Your task to perform on an android device: toggle notifications settings in the gmail app Image 0: 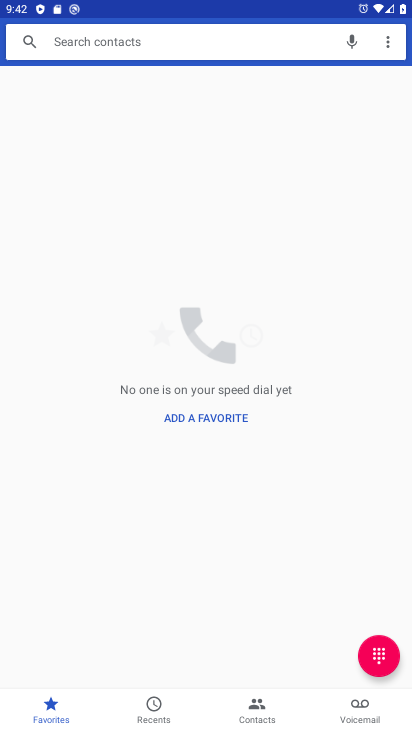
Step 0: press home button
Your task to perform on an android device: toggle notifications settings in the gmail app Image 1: 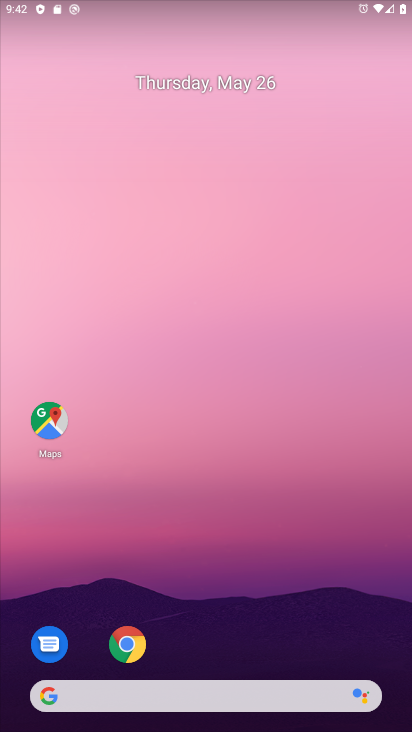
Step 1: drag from (208, 645) to (200, 248)
Your task to perform on an android device: toggle notifications settings in the gmail app Image 2: 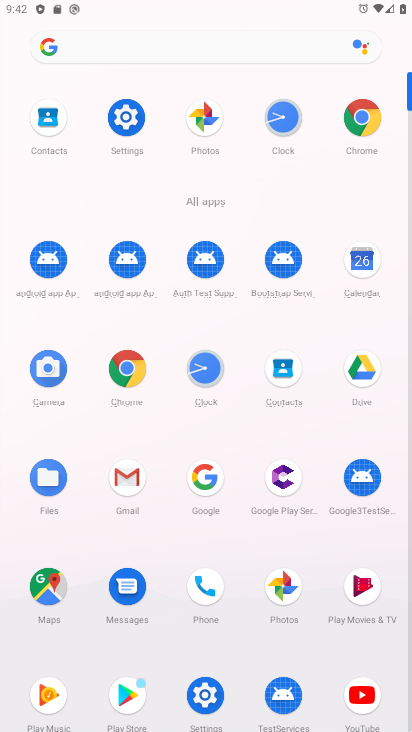
Step 2: click (135, 490)
Your task to perform on an android device: toggle notifications settings in the gmail app Image 3: 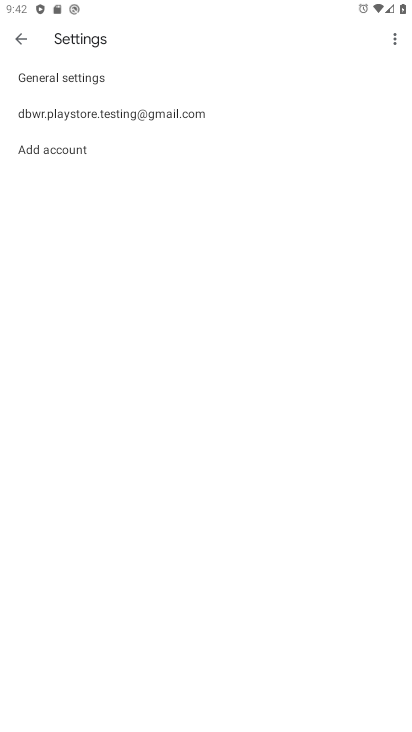
Step 3: click (213, 118)
Your task to perform on an android device: toggle notifications settings in the gmail app Image 4: 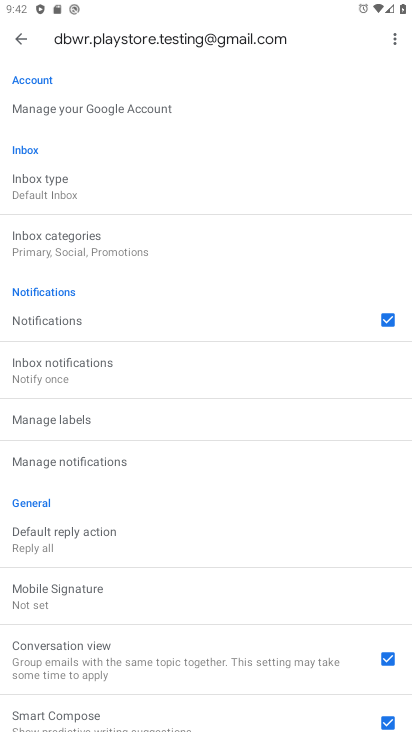
Step 4: click (108, 458)
Your task to perform on an android device: toggle notifications settings in the gmail app Image 5: 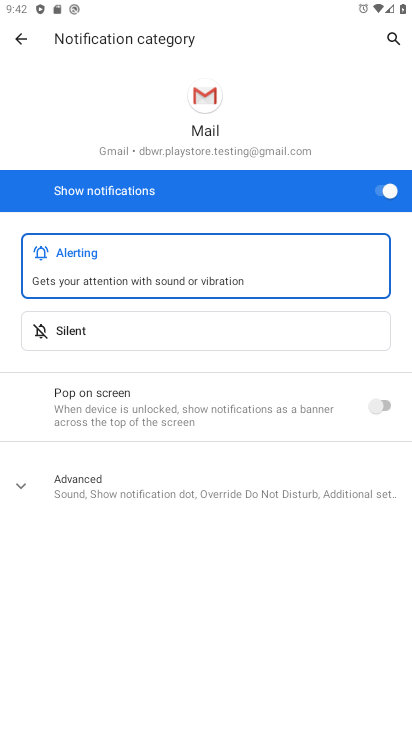
Step 5: click (373, 194)
Your task to perform on an android device: toggle notifications settings in the gmail app Image 6: 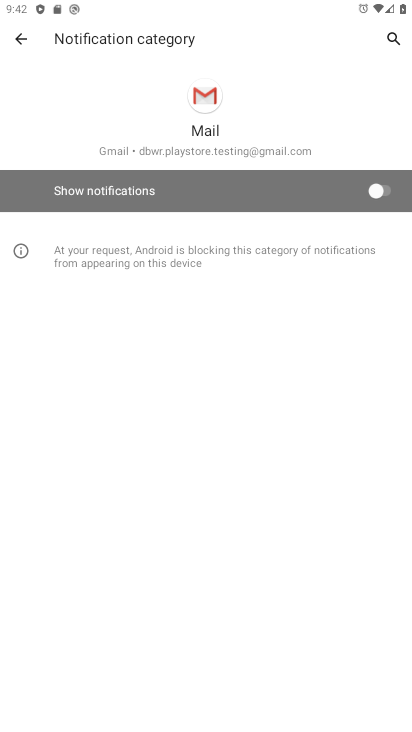
Step 6: task complete